Your task to perform on an android device: Open Reddit.com Image 0: 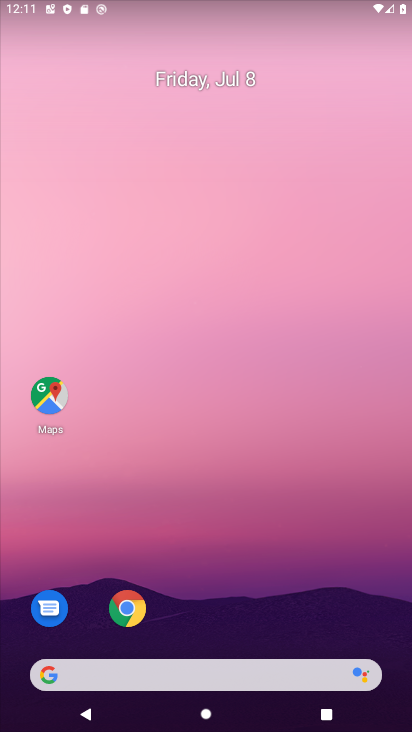
Step 0: click (250, 667)
Your task to perform on an android device: Open Reddit.com Image 1: 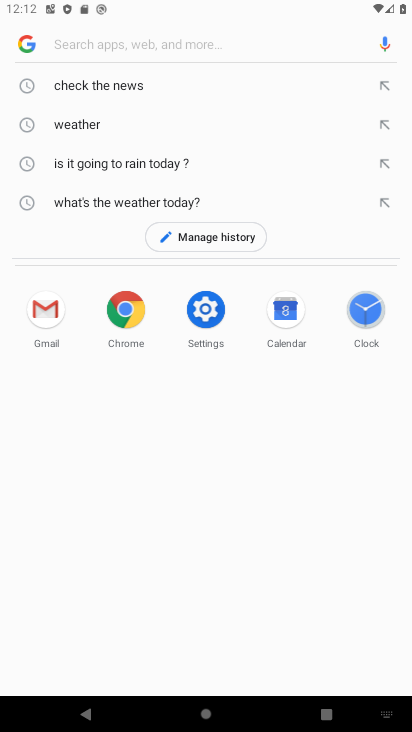
Step 1: type "reddit"
Your task to perform on an android device: Open Reddit.com Image 2: 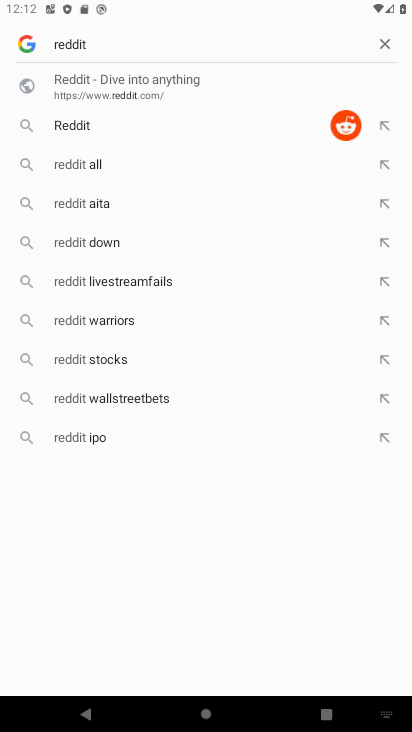
Step 2: click (205, 96)
Your task to perform on an android device: Open Reddit.com Image 3: 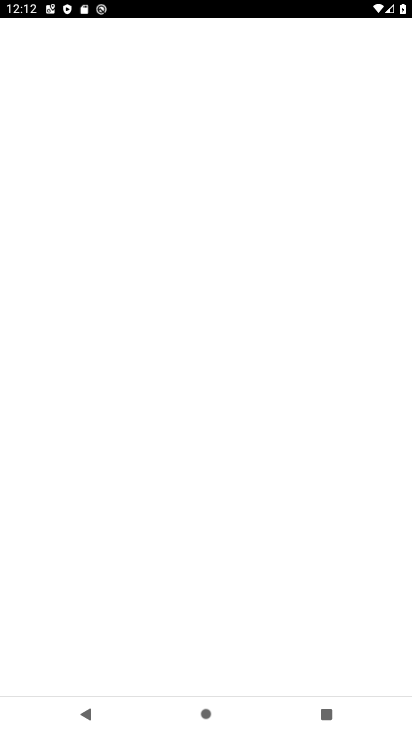
Step 3: task complete